Your task to perform on an android device: toggle improve location accuracy Image 0: 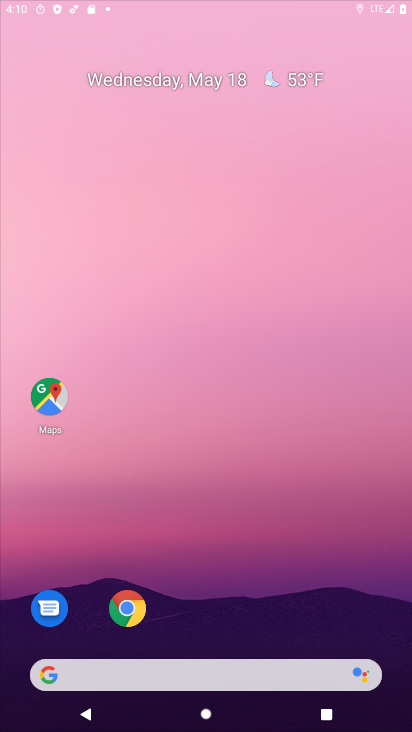
Step 0: drag from (180, 697) to (249, 29)
Your task to perform on an android device: toggle improve location accuracy Image 1: 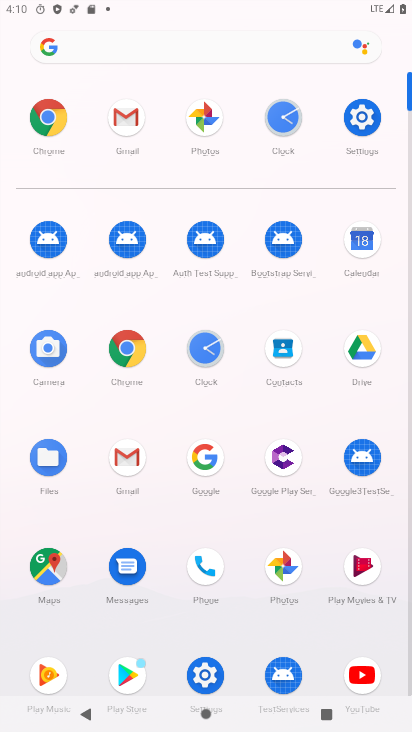
Step 1: click (369, 127)
Your task to perform on an android device: toggle improve location accuracy Image 2: 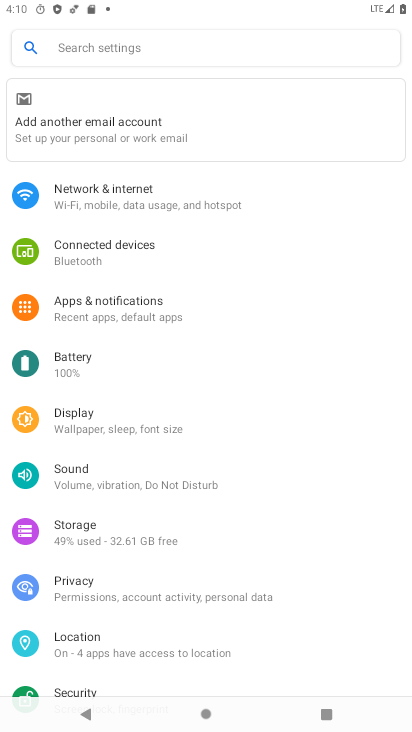
Step 2: drag from (259, 639) to (281, 216)
Your task to perform on an android device: toggle improve location accuracy Image 3: 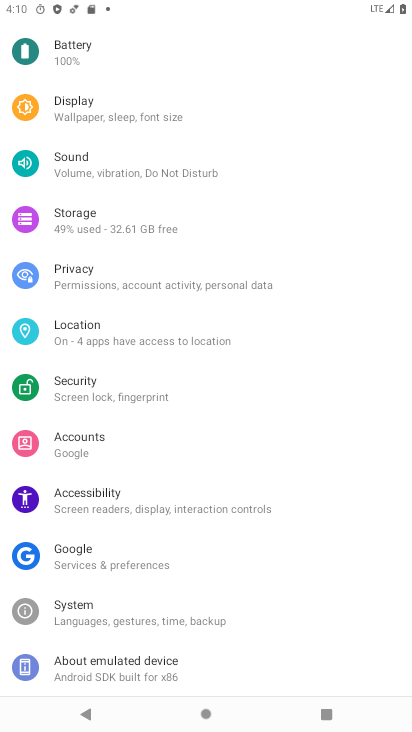
Step 3: click (125, 336)
Your task to perform on an android device: toggle improve location accuracy Image 4: 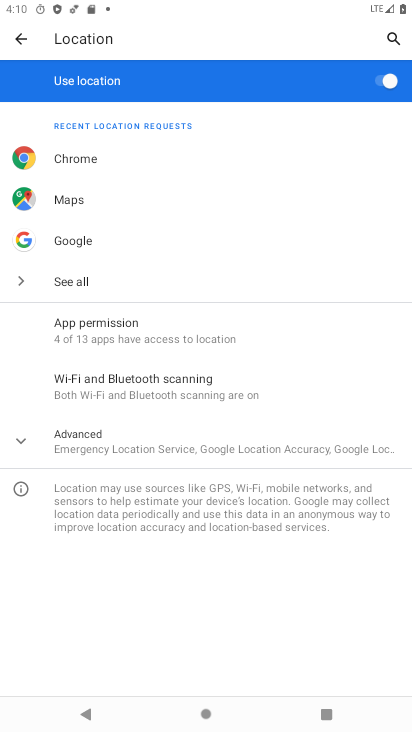
Step 4: click (171, 440)
Your task to perform on an android device: toggle improve location accuracy Image 5: 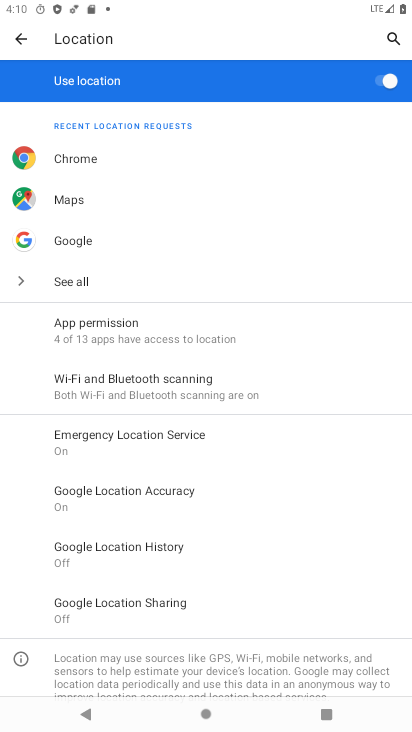
Step 5: click (152, 493)
Your task to perform on an android device: toggle improve location accuracy Image 6: 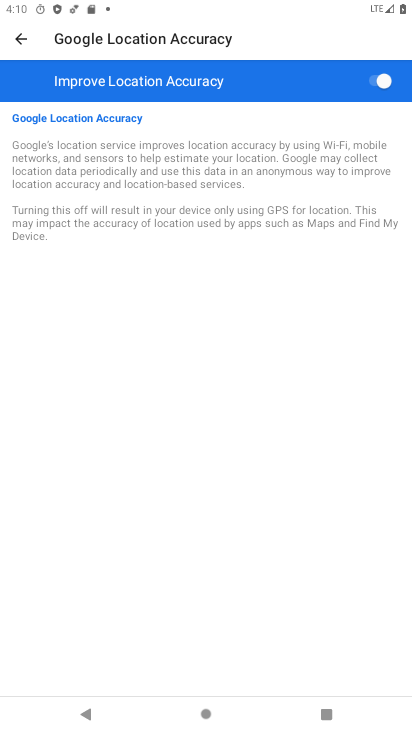
Step 6: click (386, 80)
Your task to perform on an android device: toggle improve location accuracy Image 7: 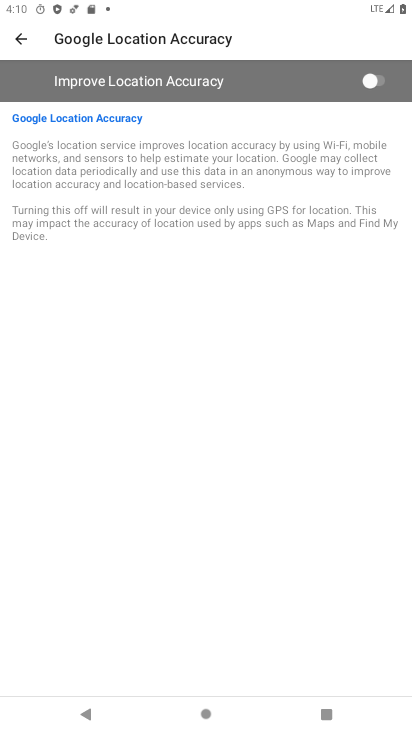
Step 7: task complete